Your task to perform on an android device: uninstall "Adobe Acrobat Reader" Image 0: 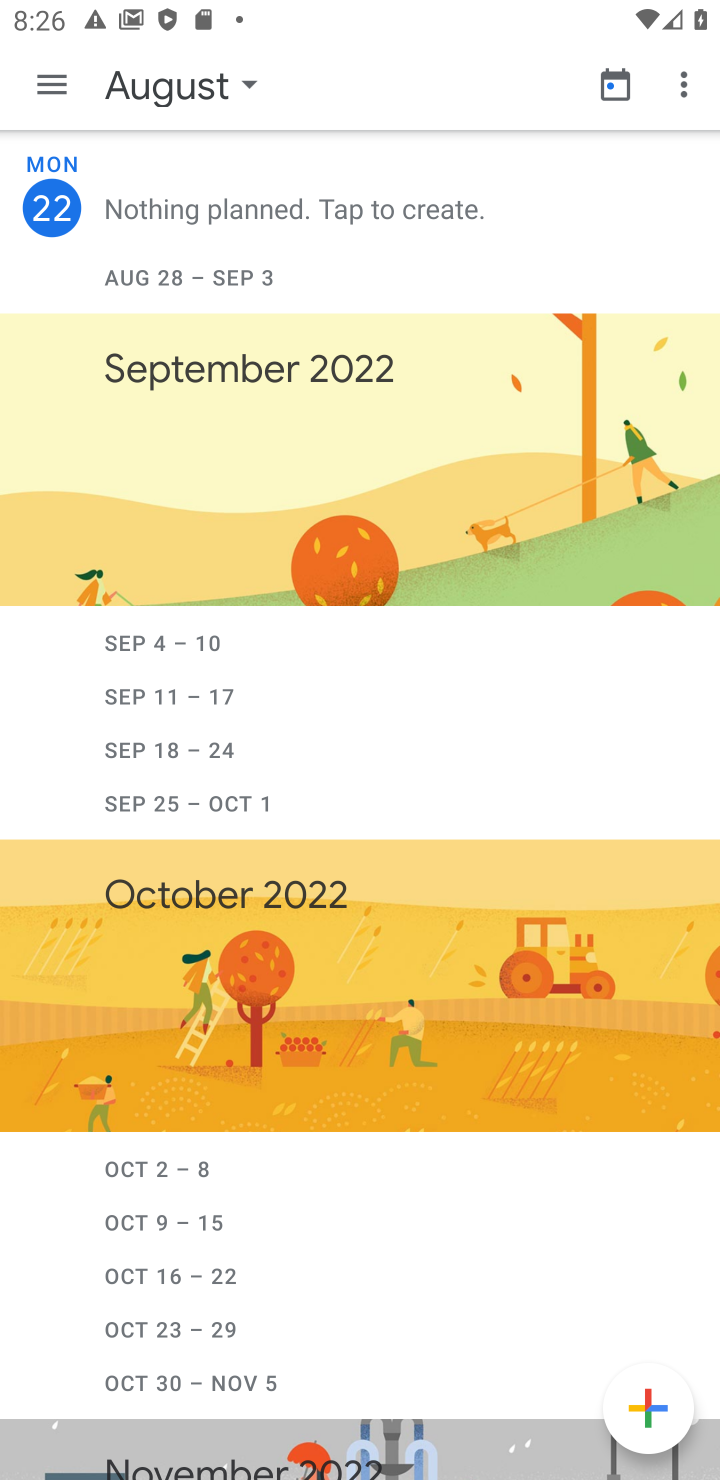
Step 0: press home button
Your task to perform on an android device: uninstall "Adobe Acrobat Reader" Image 1: 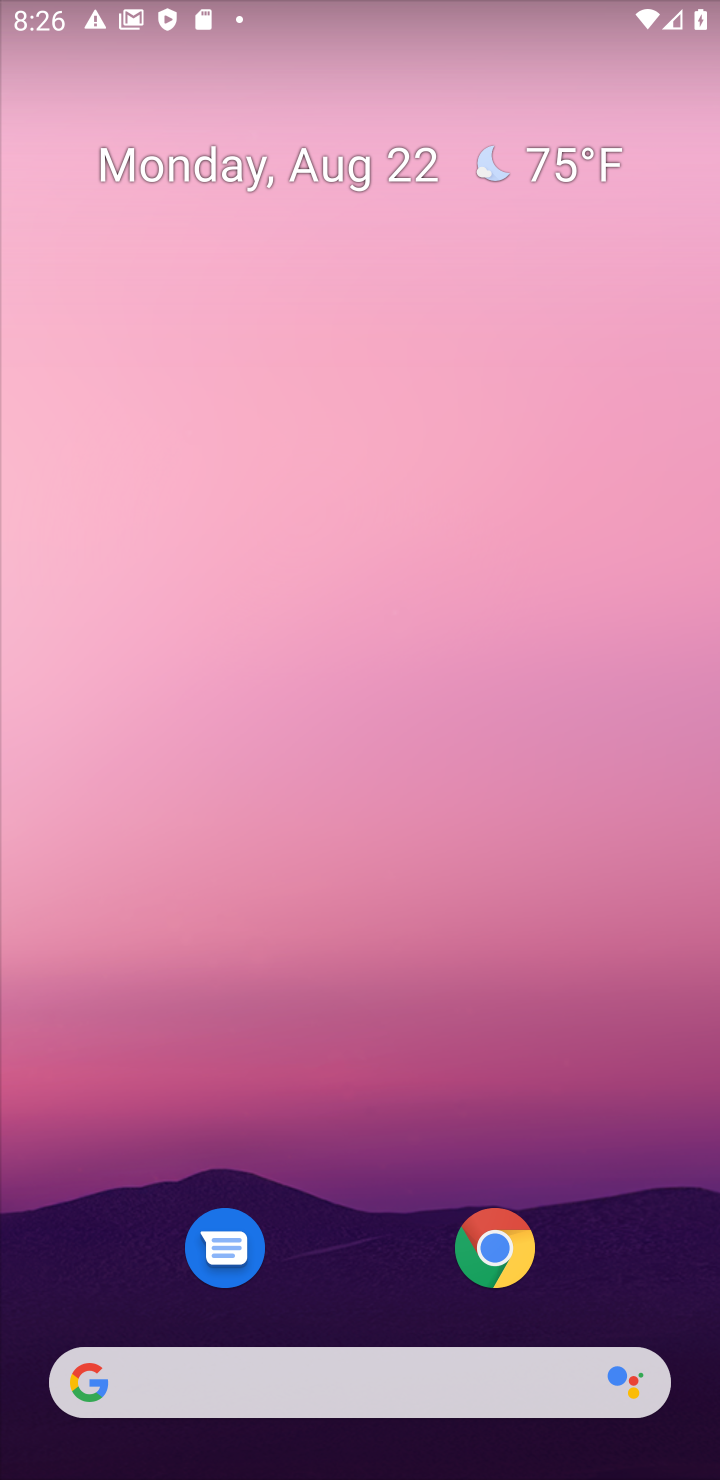
Step 1: drag from (396, 1003) to (396, 156)
Your task to perform on an android device: uninstall "Adobe Acrobat Reader" Image 2: 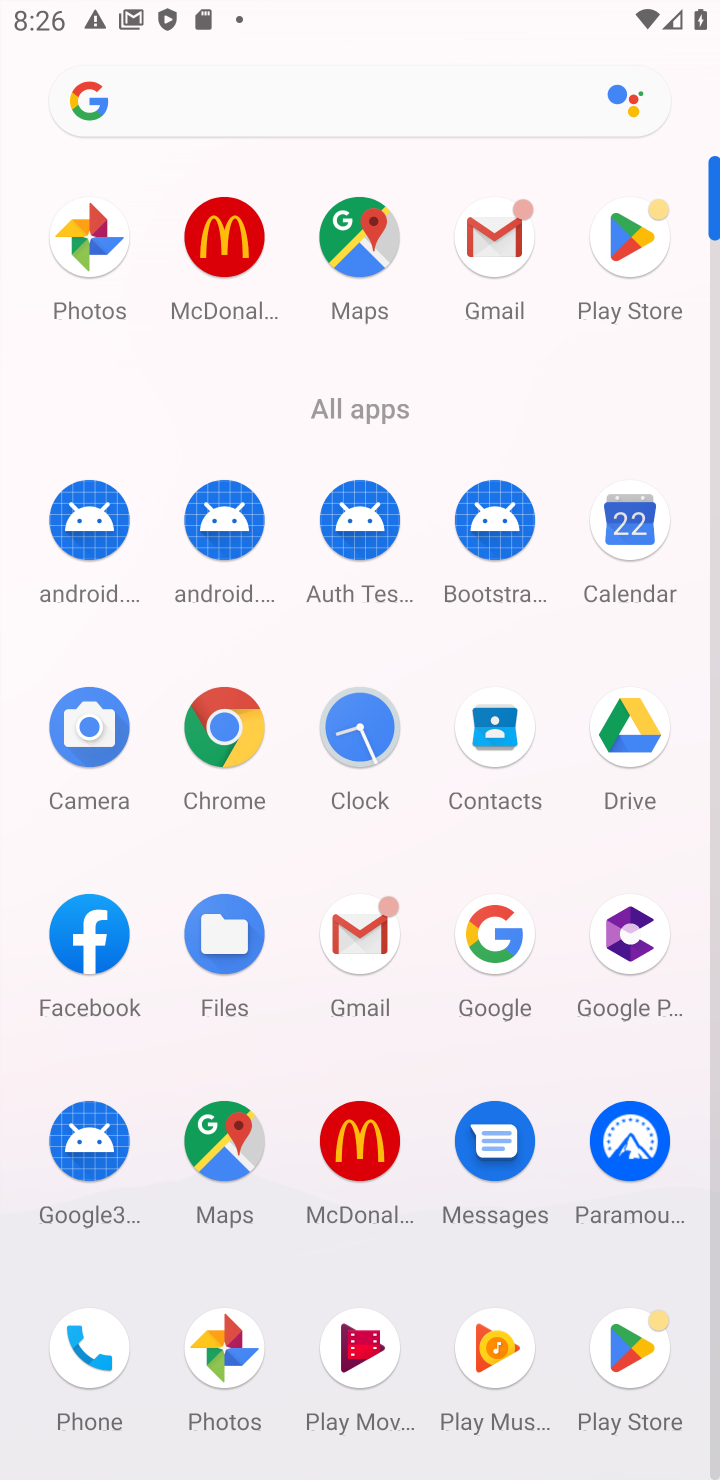
Step 2: click (636, 1340)
Your task to perform on an android device: uninstall "Adobe Acrobat Reader" Image 3: 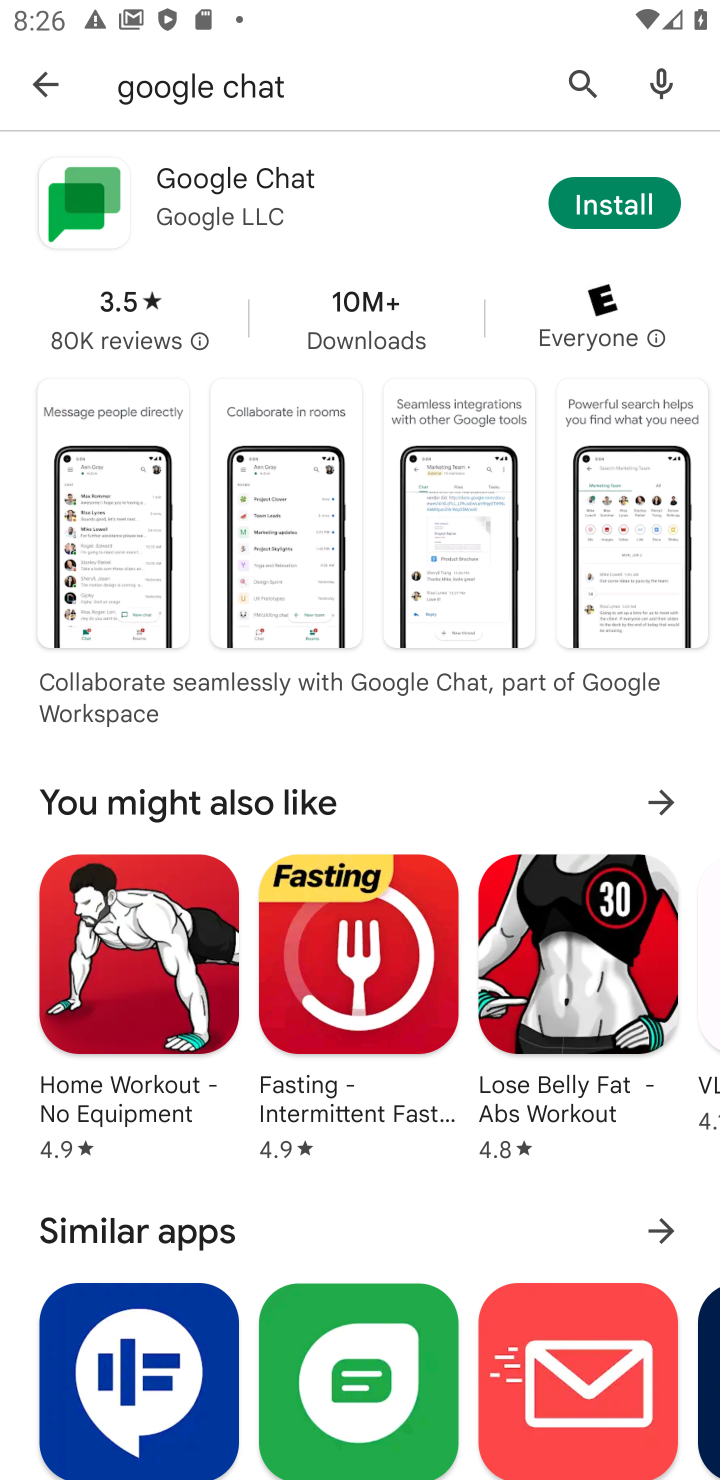
Step 3: click (579, 74)
Your task to perform on an android device: uninstall "Adobe Acrobat Reader" Image 4: 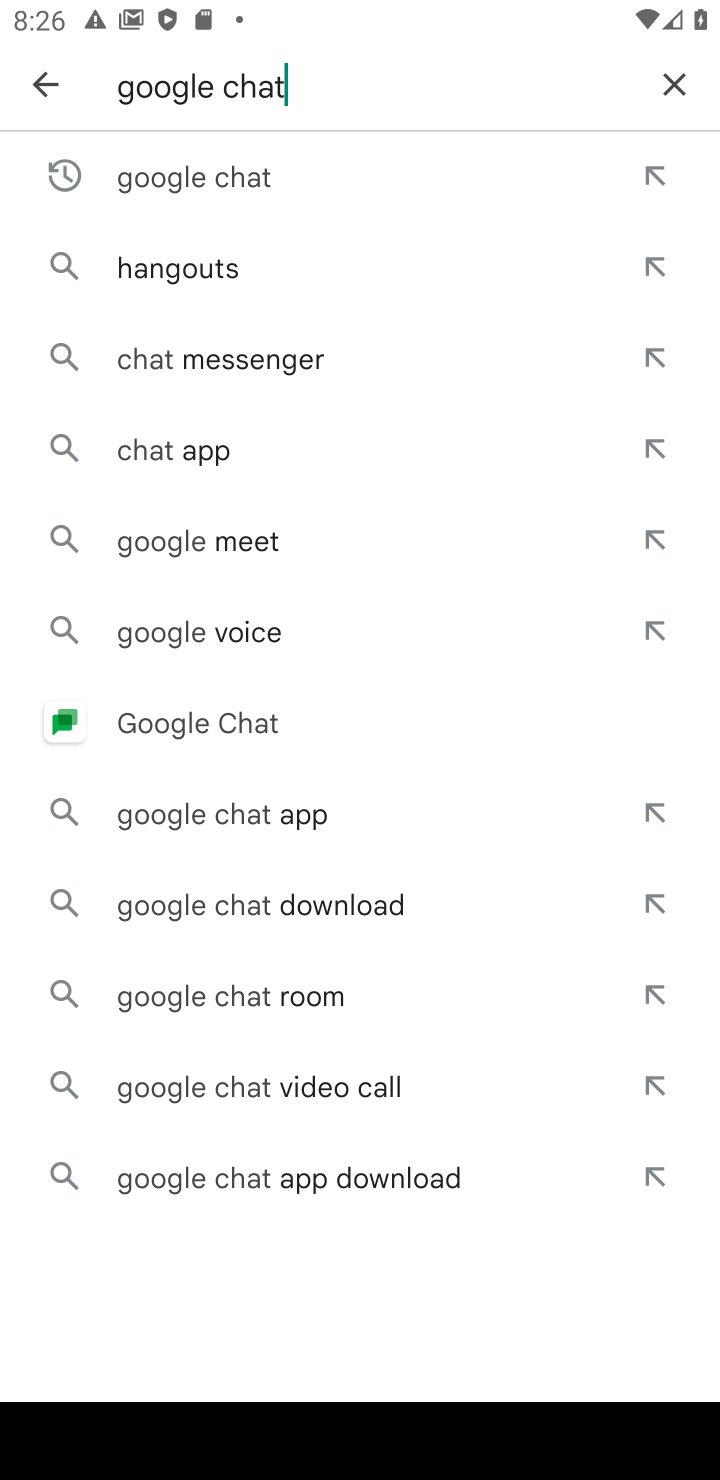
Step 4: click (677, 83)
Your task to perform on an android device: uninstall "Adobe Acrobat Reader" Image 5: 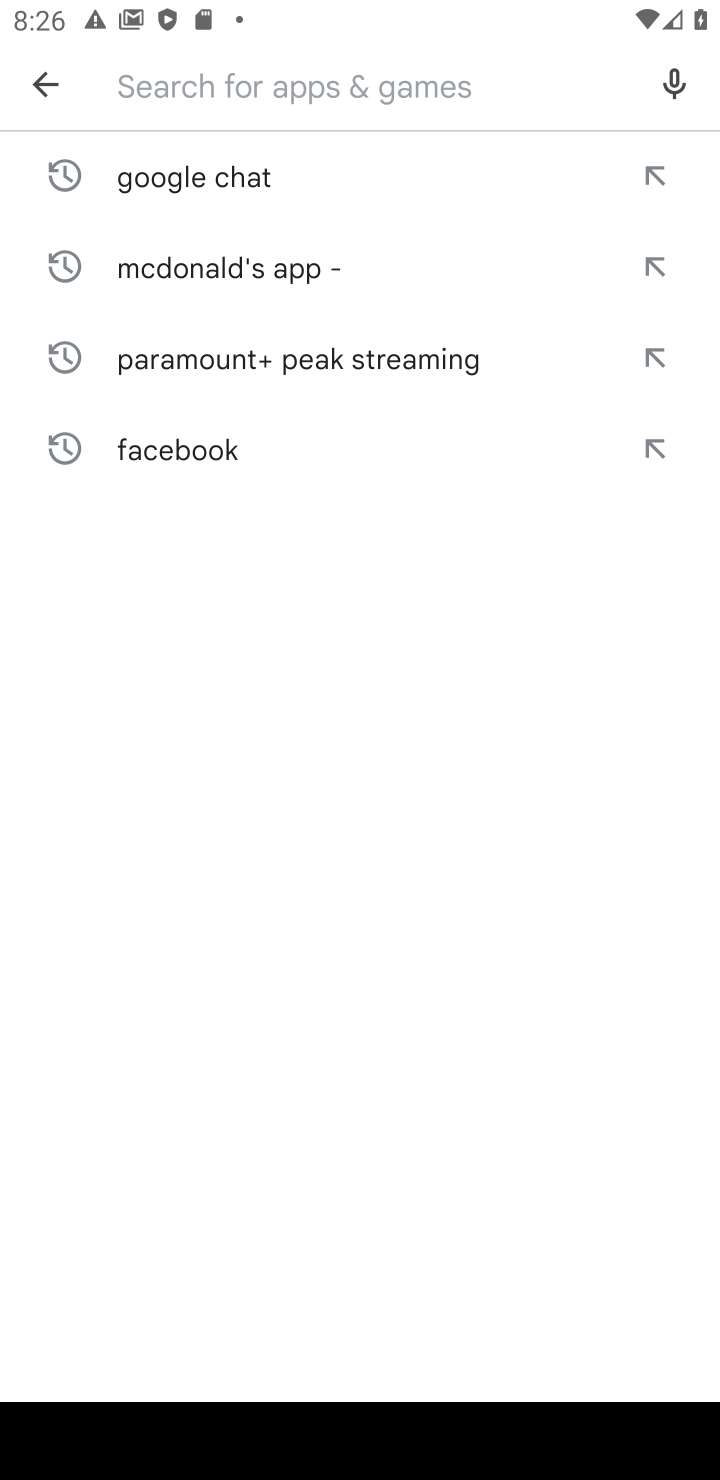
Step 5: type "Adobe Acrobat Reader"
Your task to perform on an android device: uninstall "Adobe Acrobat Reader" Image 6: 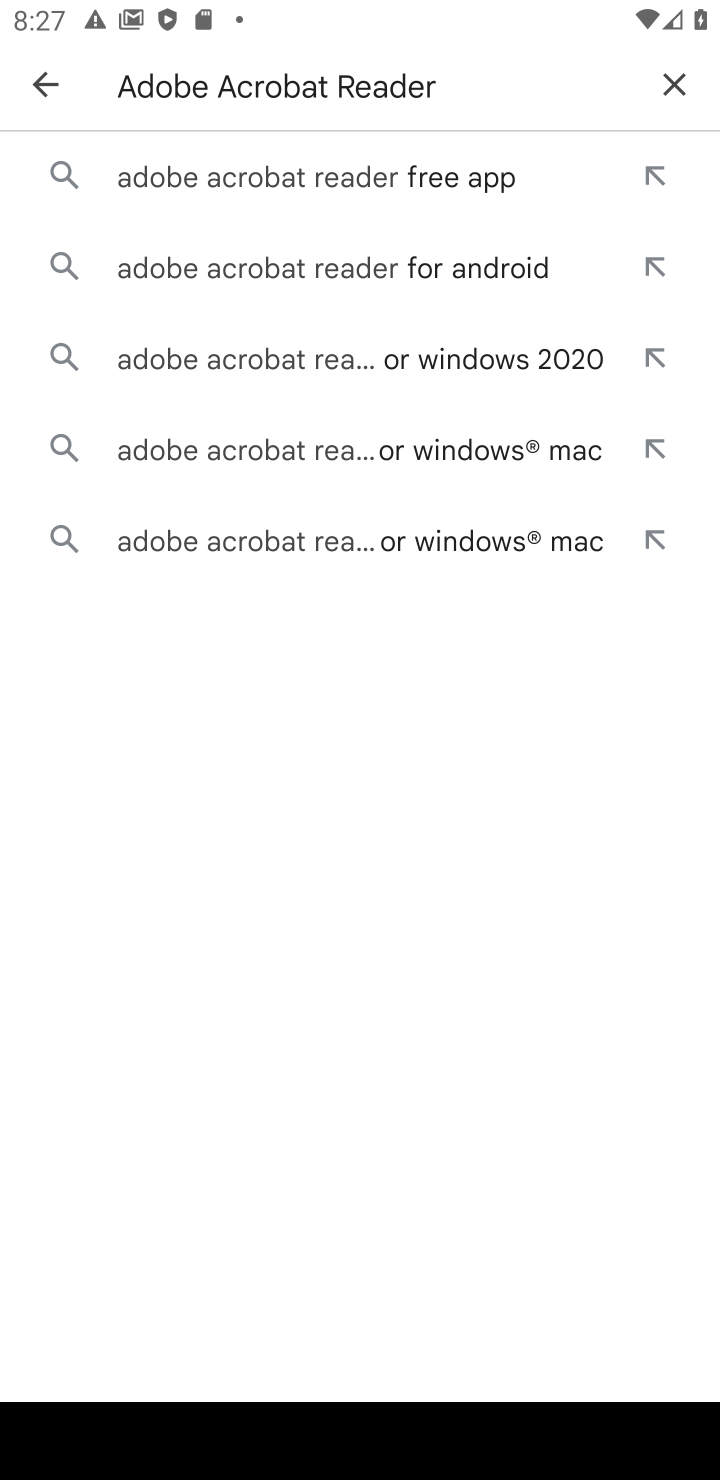
Step 6: click (281, 190)
Your task to perform on an android device: uninstall "Adobe Acrobat Reader" Image 7: 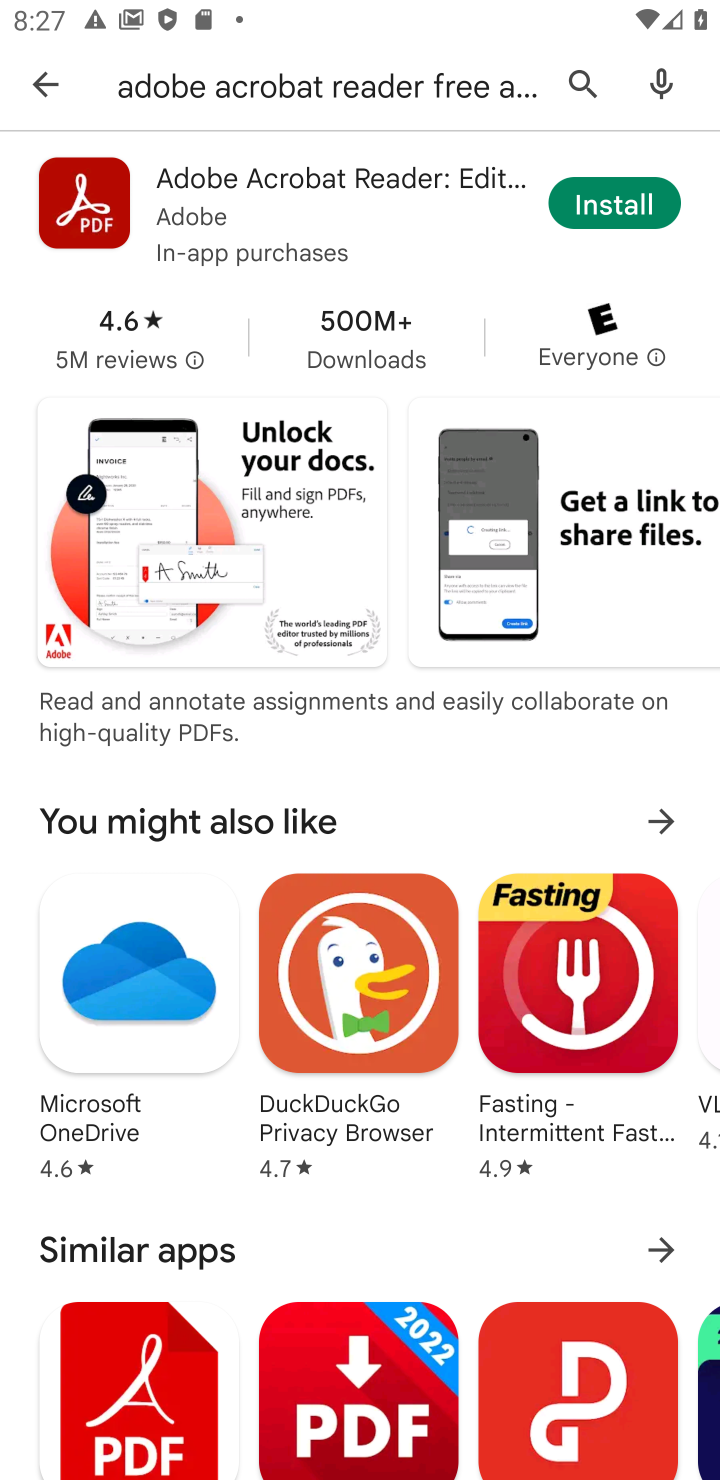
Step 7: task complete